Your task to perform on an android device: Show me productivity apps on the Play Store Image 0: 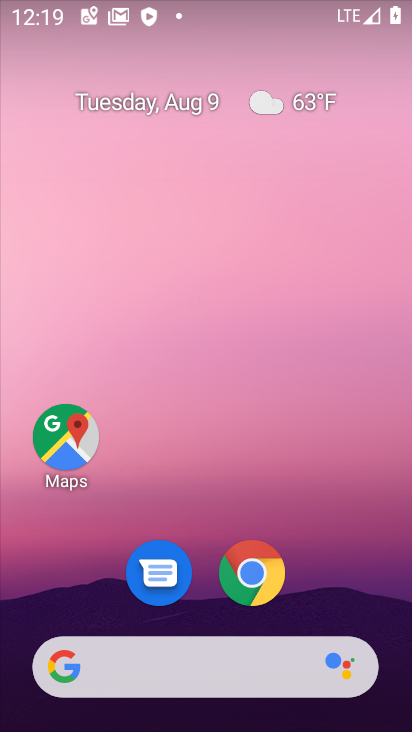
Step 0: drag from (201, 633) to (214, 267)
Your task to perform on an android device: Show me productivity apps on the Play Store Image 1: 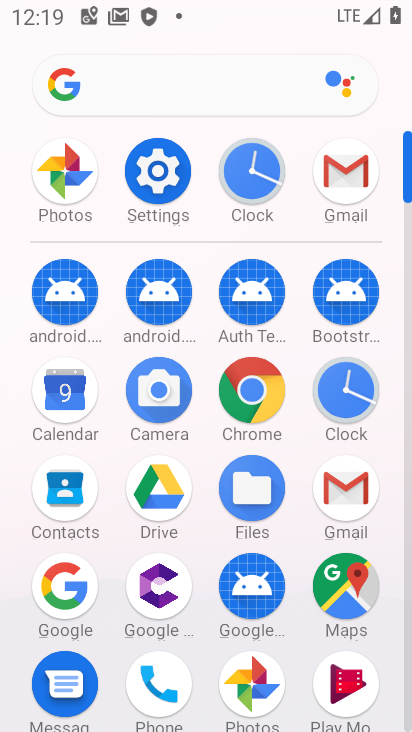
Step 1: drag from (118, 666) to (156, 244)
Your task to perform on an android device: Show me productivity apps on the Play Store Image 2: 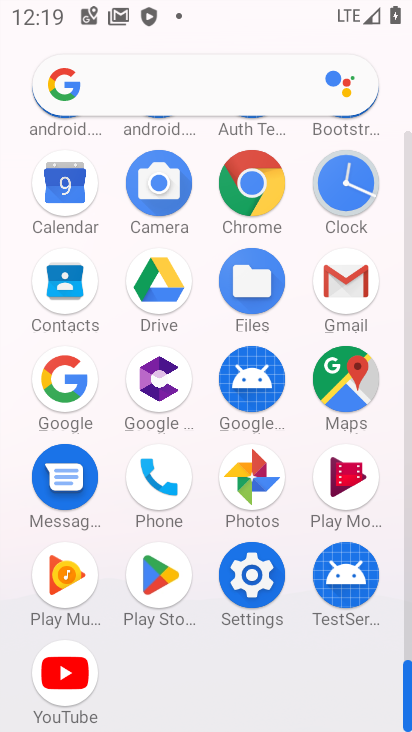
Step 2: click (150, 585)
Your task to perform on an android device: Show me productivity apps on the Play Store Image 3: 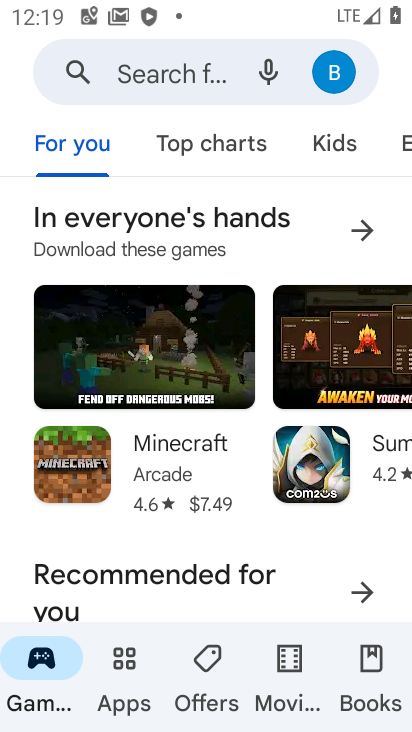
Step 3: click (118, 667)
Your task to perform on an android device: Show me productivity apps on the Play Store Image 4: 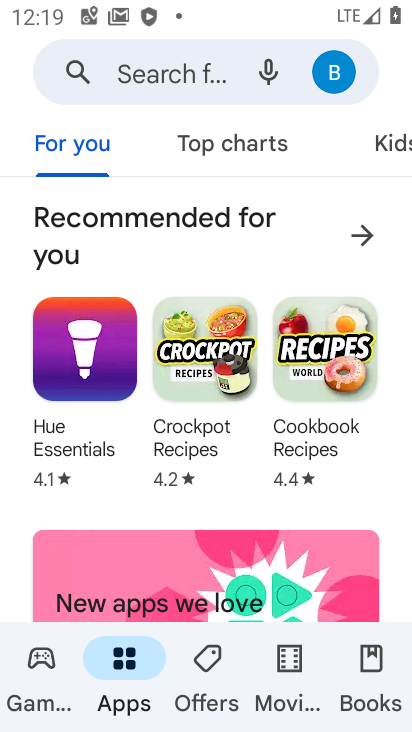
Step 4: task complete